Your task to perform on an android device: Open settings Image 0: 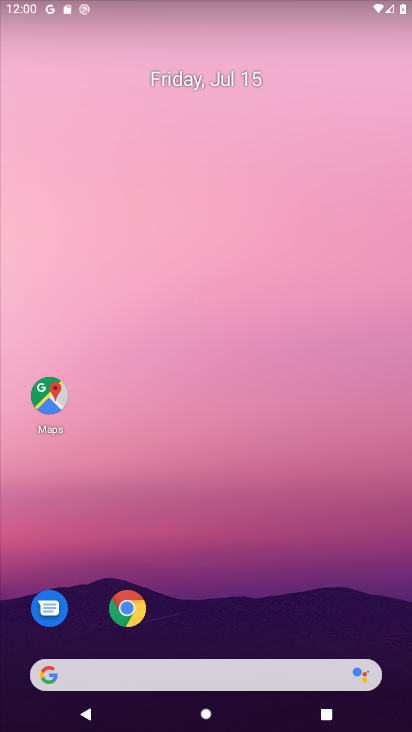
Step 0: drag from (242, 548) to (149, 81)
Your task to perform on an android device: Open settings Image 1: 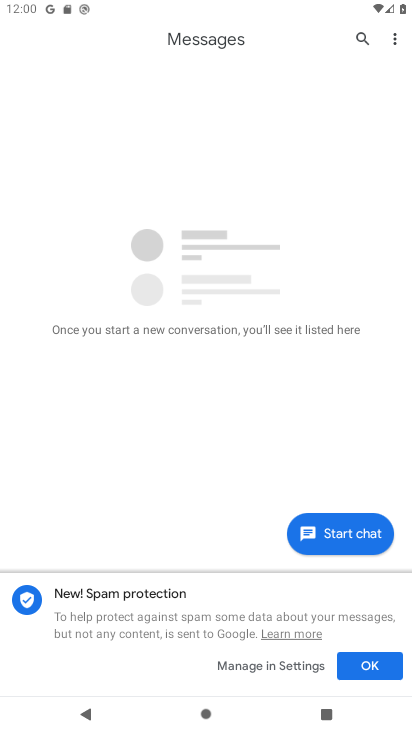
Step 1: press home button
Your task to perform on an android device: Open settings Image 2: 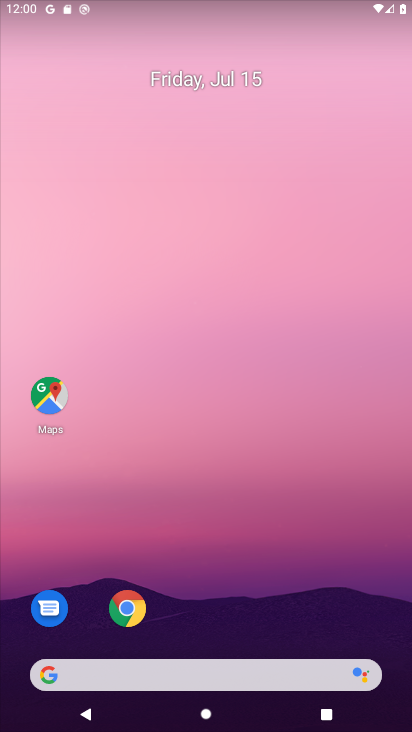
Step 2: drag from (227, 586) to (182, 93)
Your task to perform on an android device: Open settings Image 3: 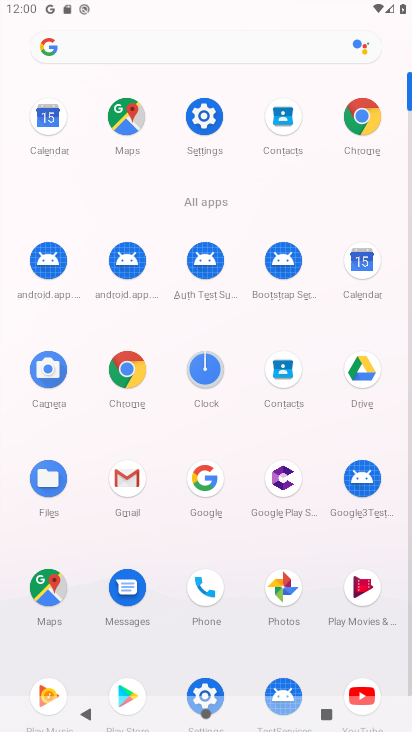
Step 3: click (200, 107)
Your task to perform on an android device: Open settings Image 4: 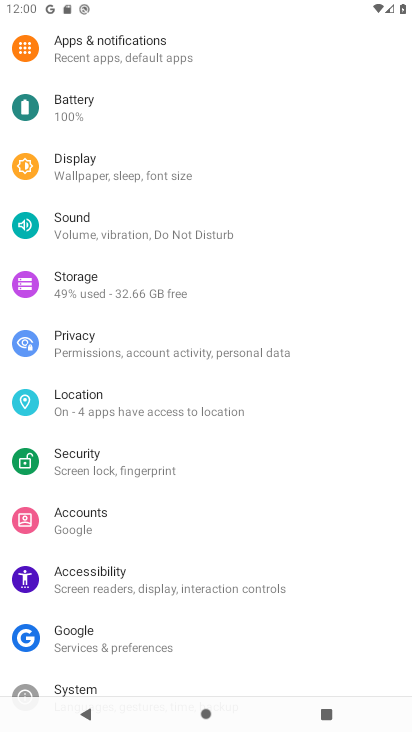
Step 4: task complete